Your task to perform on an android device: toggle improve location accuracy Image 0: 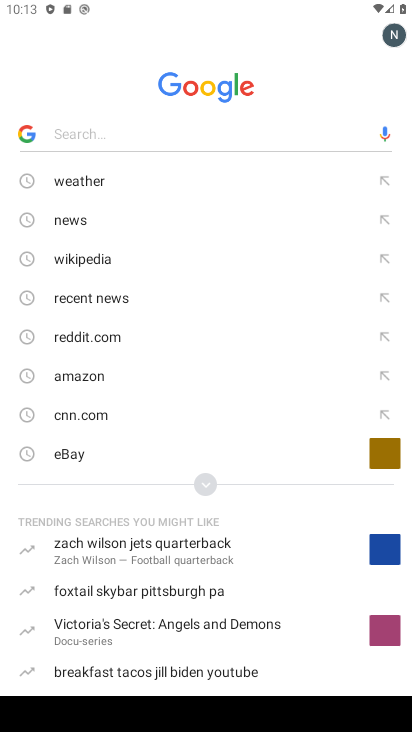
Step 0: press home button
Your task to perform on an android device: toggle improve location accuracy Image 1: 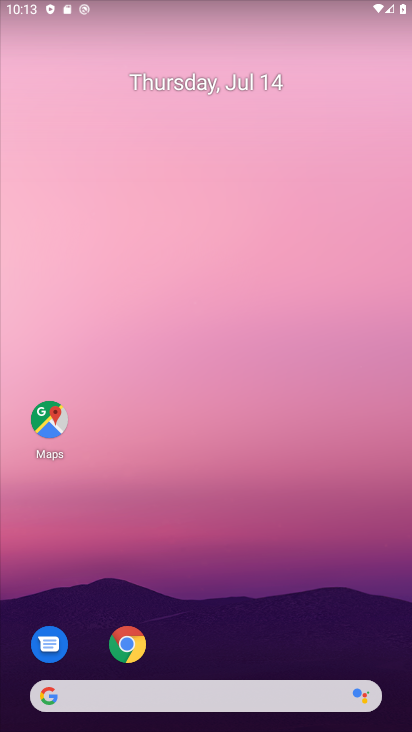
Step 1: drag from (238, 647) to (184, 220)
Your task to perform on an android device: toggle improve location accuracy Image 2: 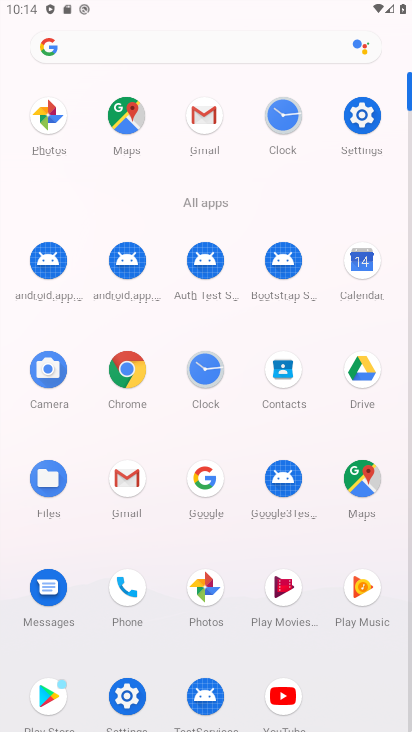
Step 2: click (355, 127)
Your task to perform on an android device: toggle improve location accuracy Image 3: 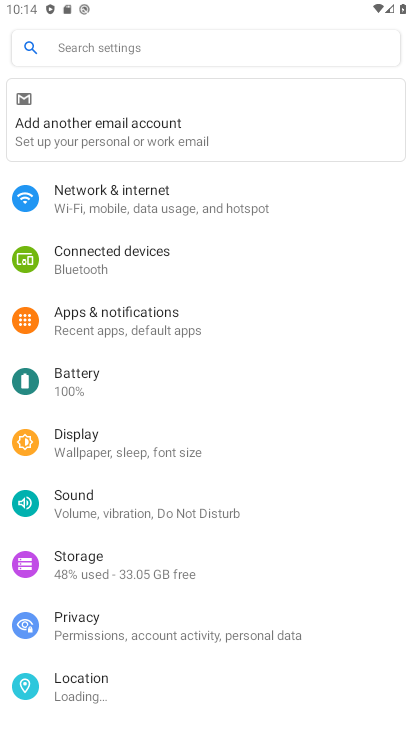
Step 3: drag from (236, 677) to (191, 263)
Your task to perform on an android device: toggle improve location accuracy Image 4: 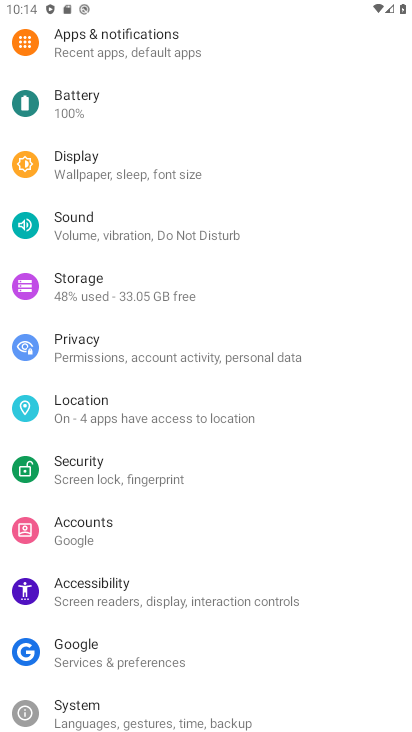
Step 4: click (180, 398)
Your task to perform on an android device: toggle improve location accuracy Image 5: 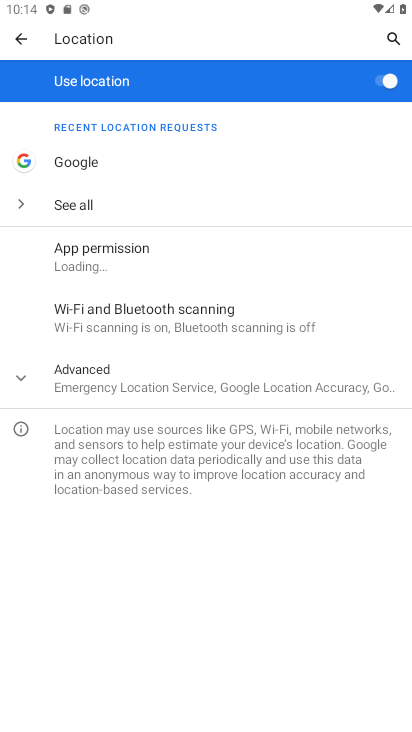
Step 5: click (182, 391)
Your task to perform on an android device: toggle improve location accuracy Image 6: 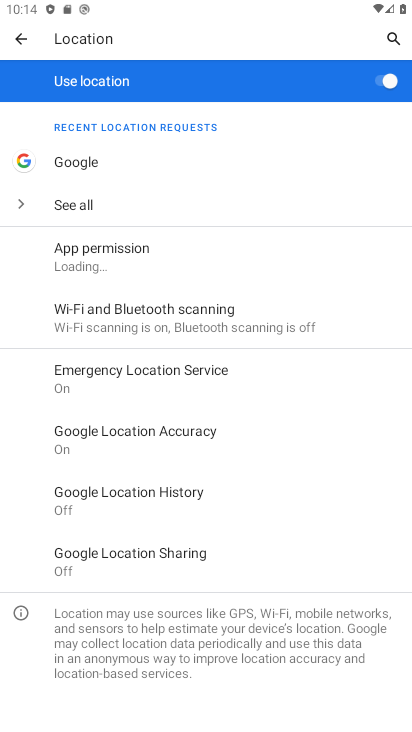
Step 6: click (190, 431)
Your task to perform on an android device: toggle improve location accuracy Image 7: 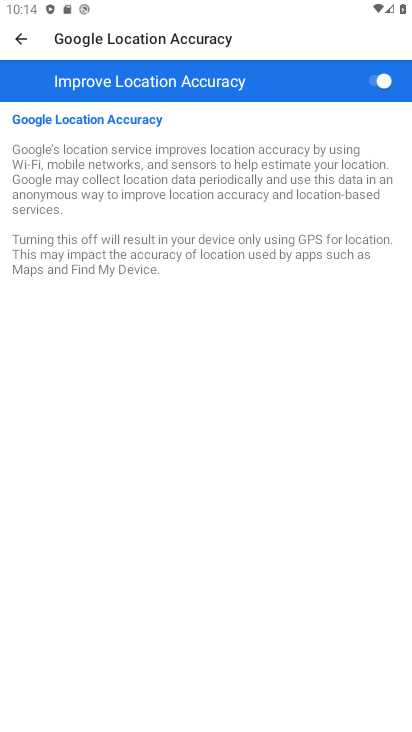
Step 7: click (379, 79)
Your task to perform on an android device: toggle improve location accuracy Image 8: 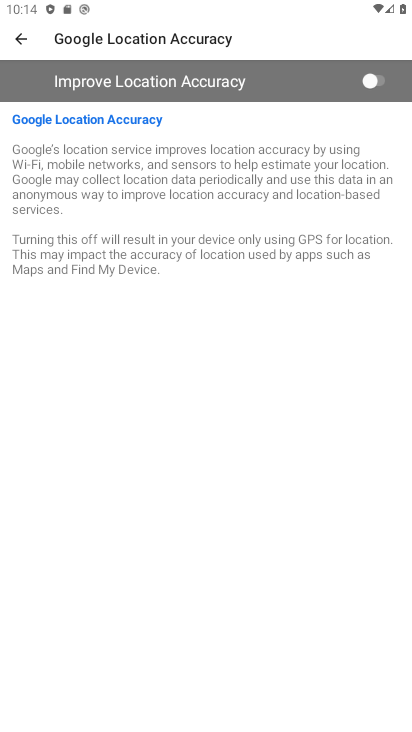
Step 8: task complete